Your task to perform on an android device: turn on notifications settings in the gmail app Image 0: 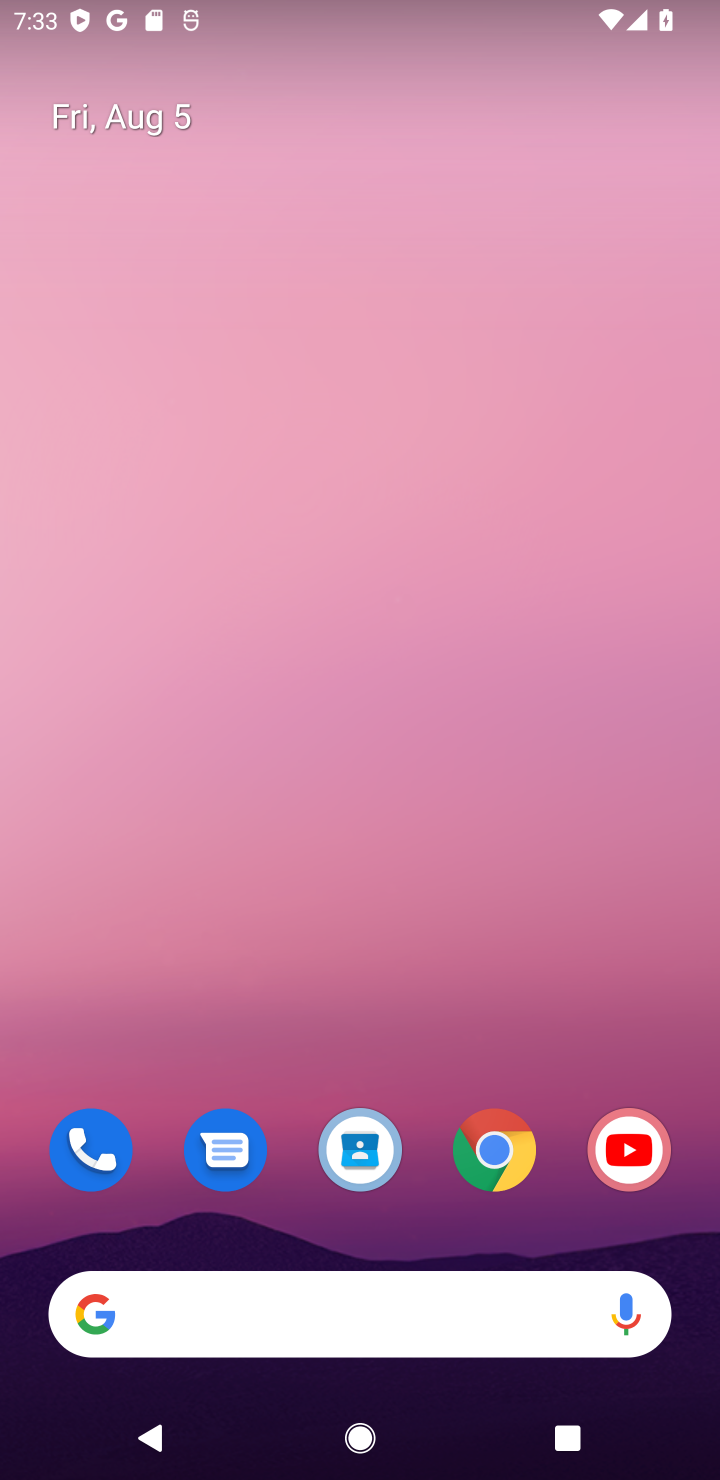
Step 0: press home button
Your task to perform on an android device: turn on notifications settings in the gmail app Image 1: 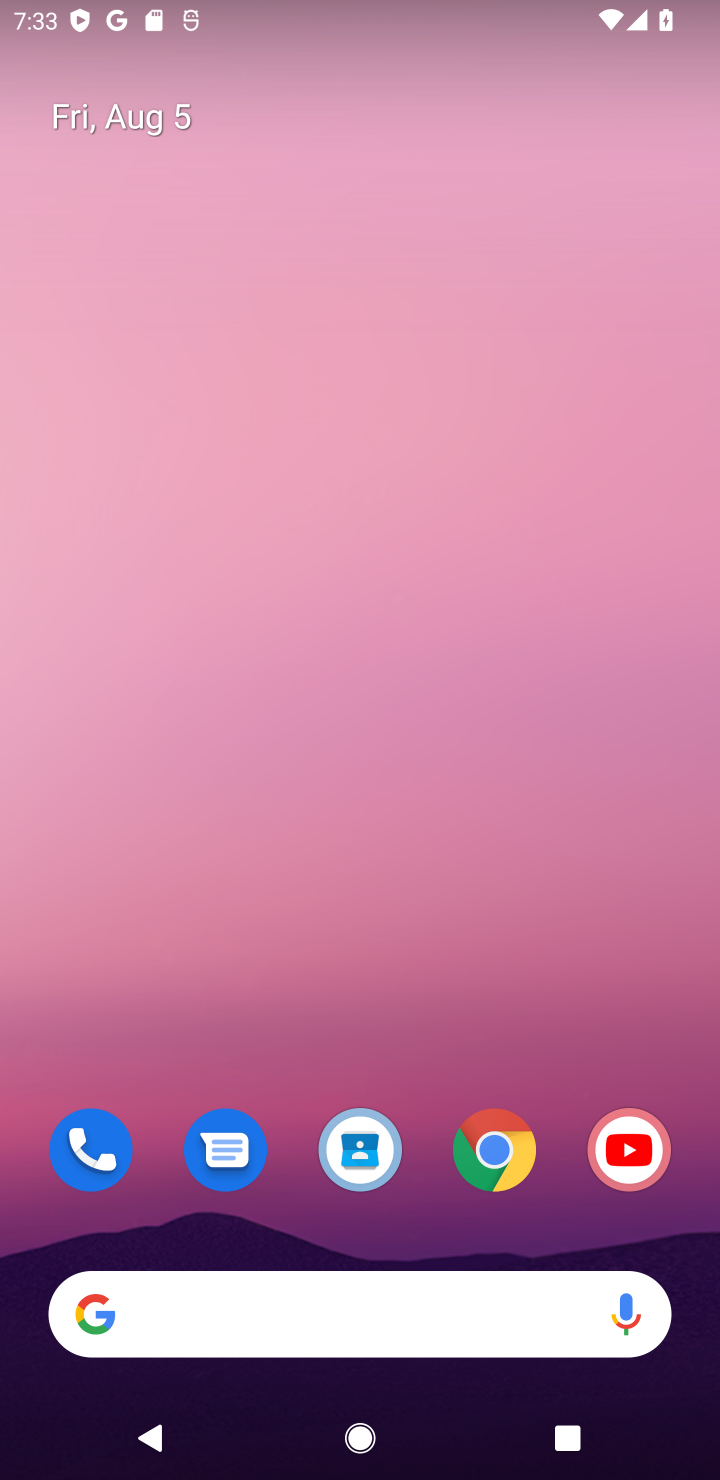
Step 1: drag from (421, 1074) to (477, 242)
Your task to perform on an android device: turn on notifications settings in the gmail app Image 2: 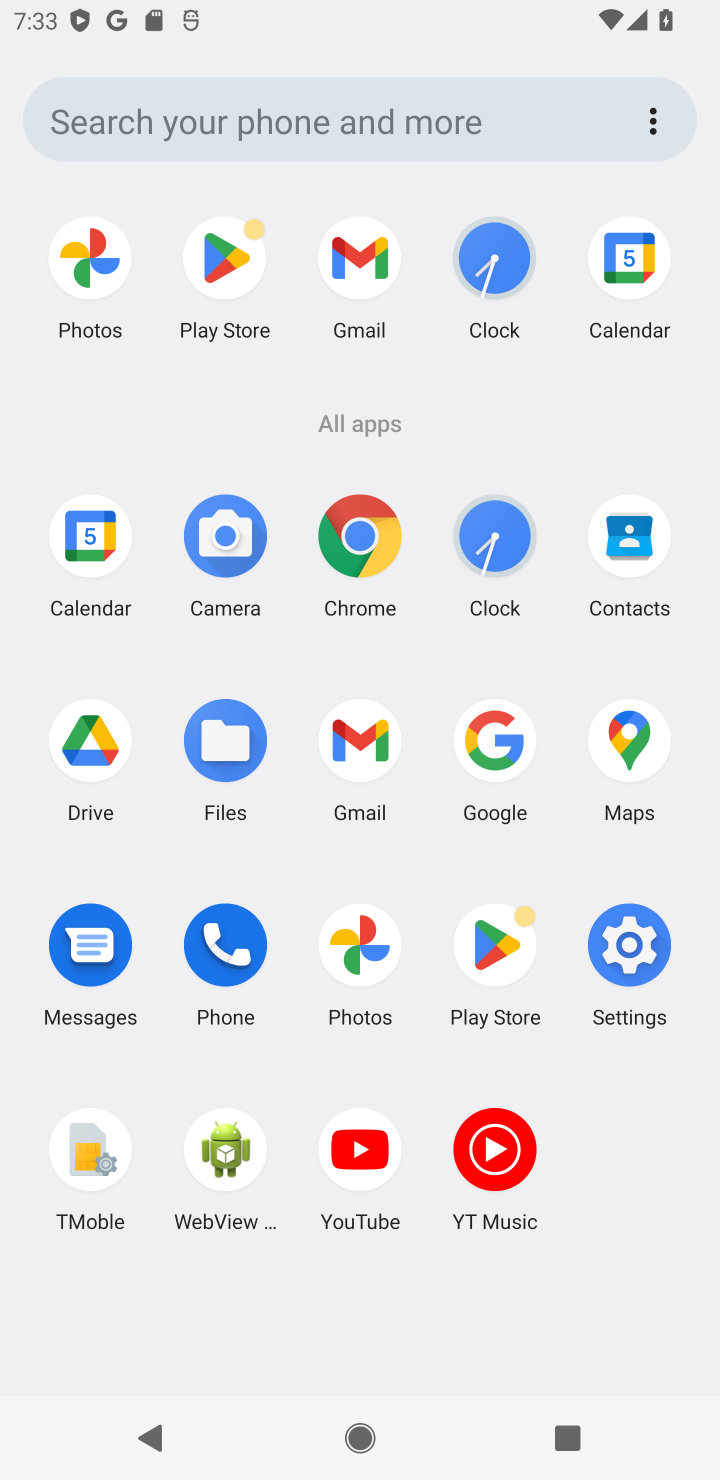
Step 2: click (363, 733)
Your task to perform on an android device: turn on notifications settings in the gmail app Image 3: 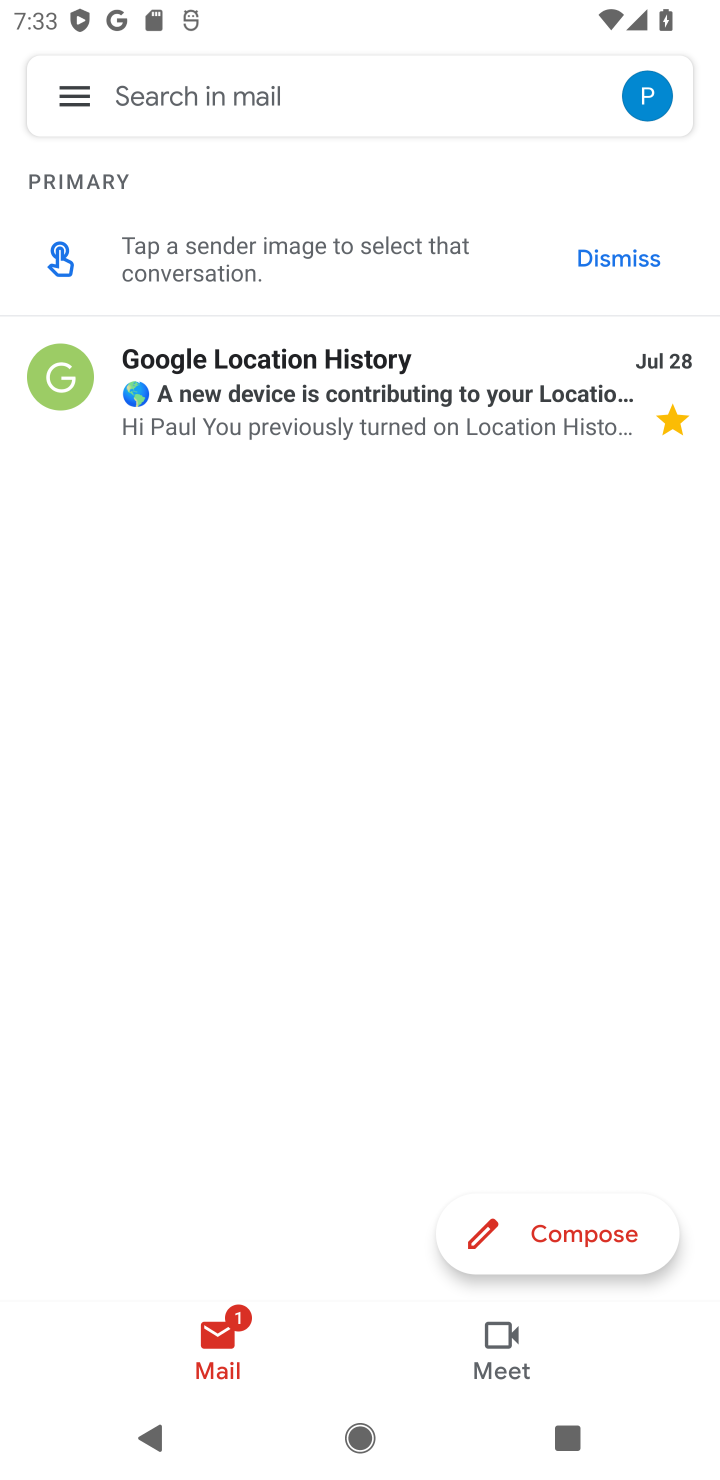
Step 3: click (69, 86)
Your task to perform on an android device: turn on notifications settings in the gmail app Image 4: 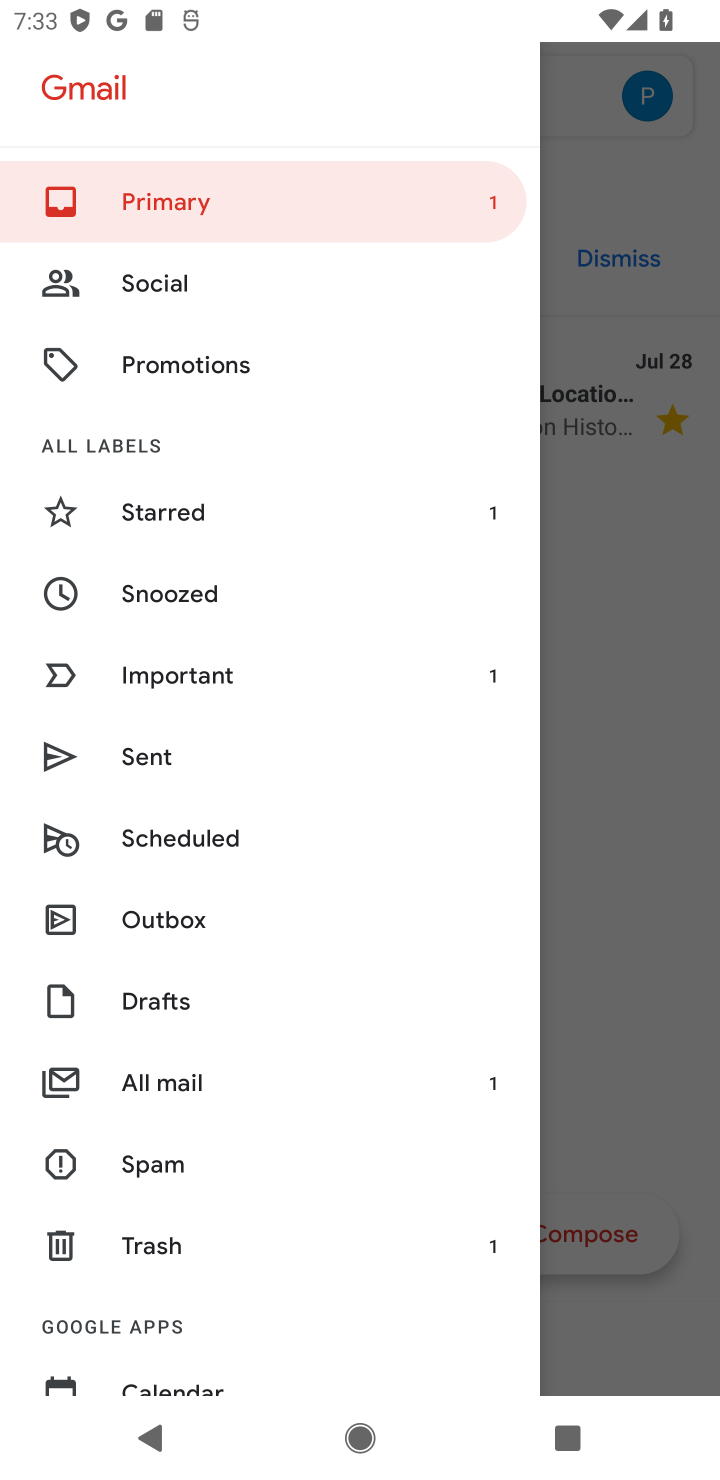
Step 4: drag from (393, 920) to (398, 619)
Your task to perform on an android device: turn on notifications settings in the gmail app Image 5: 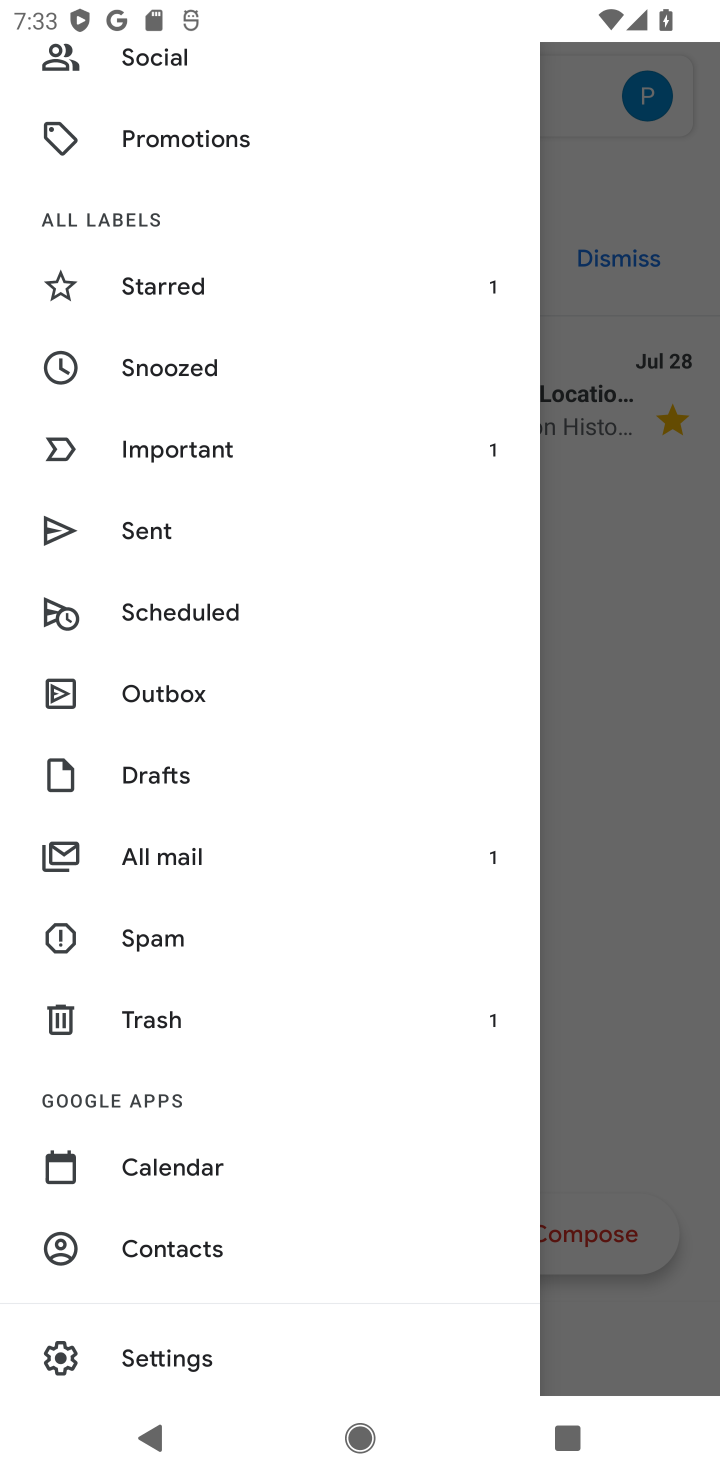
Step 5: drag from (301, 961) to (341, 599)
Your task to perform on an android device: turn on notifications settings in the gmail app Image 6: 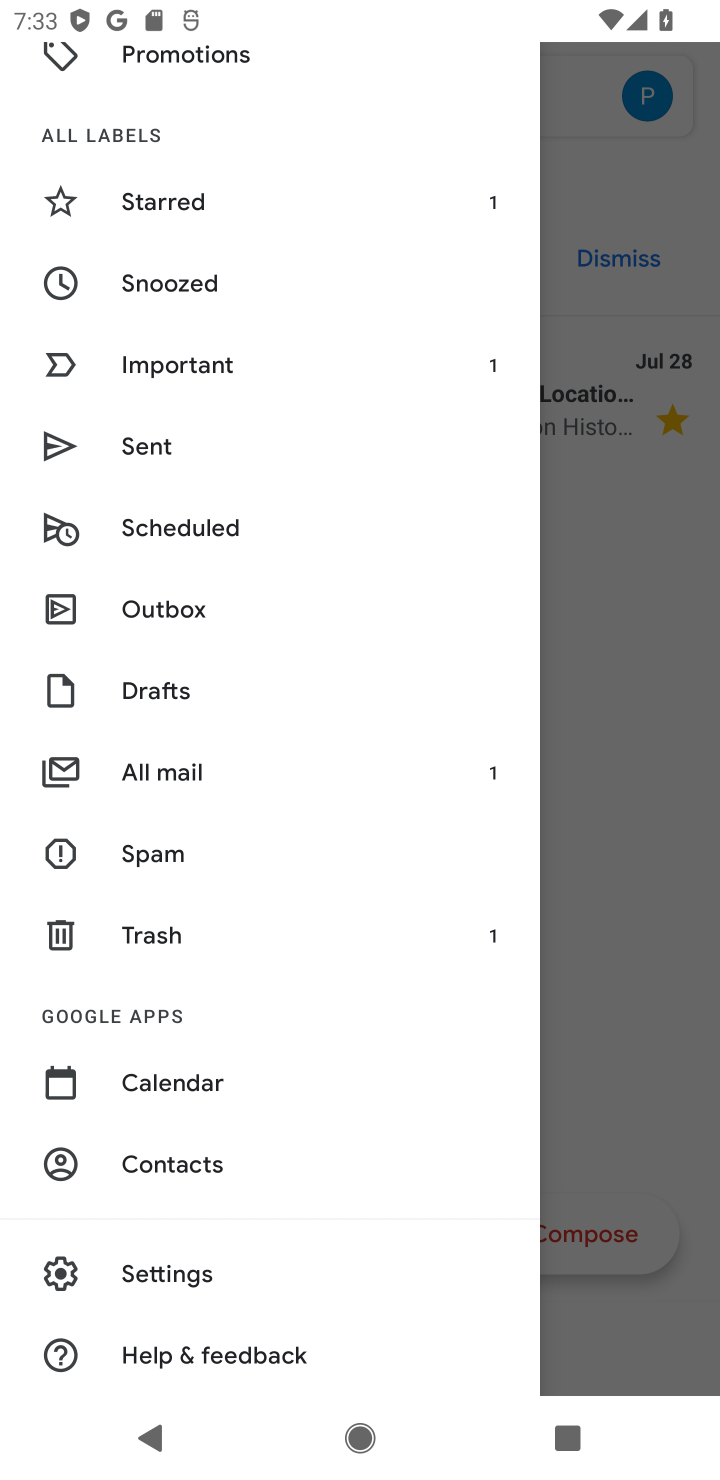
Step 6: drag from (319, 1178) to (343, 873)
Your task to perform on an android device: turn on notifications settings in the gmail app Image 7: 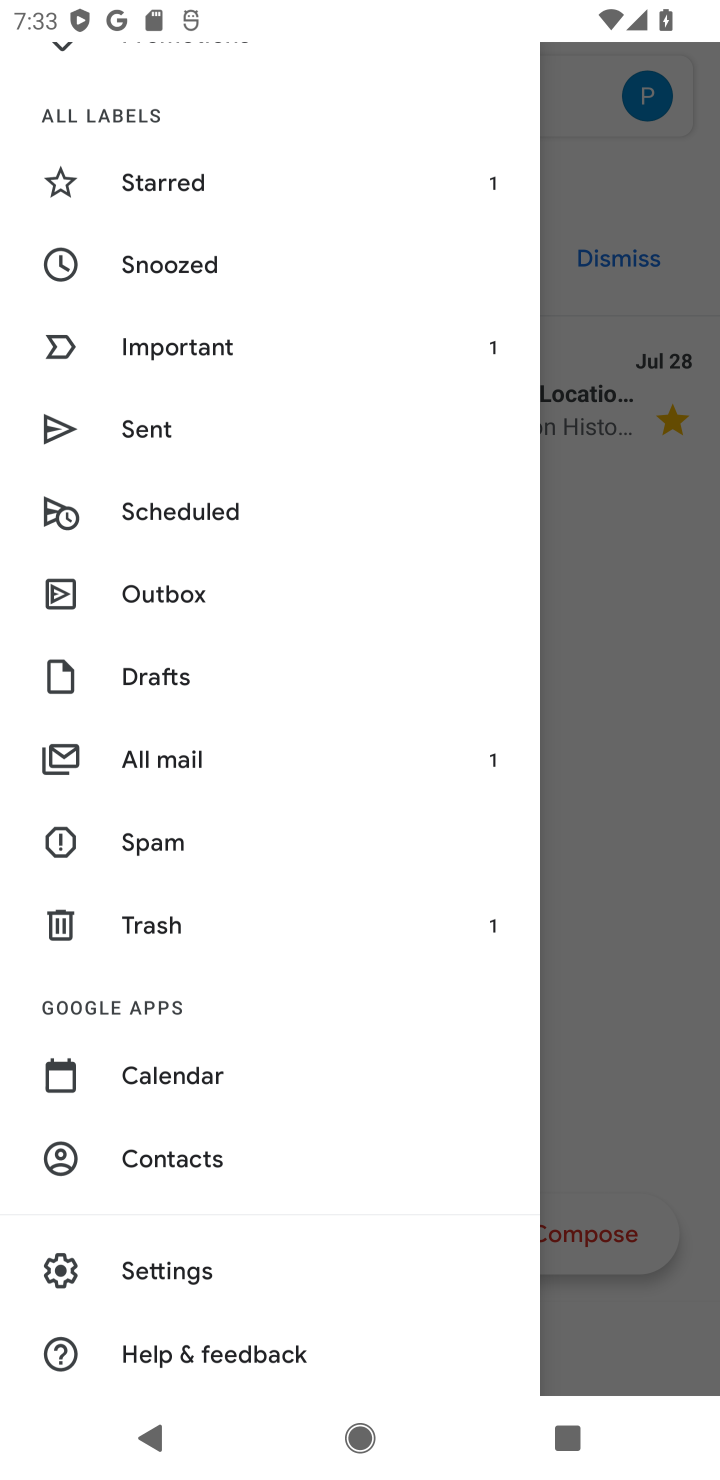
Step 7: click (214, 1264)
Your task to perform on an android device: turn on notifications settings in the gmail app Image 8: 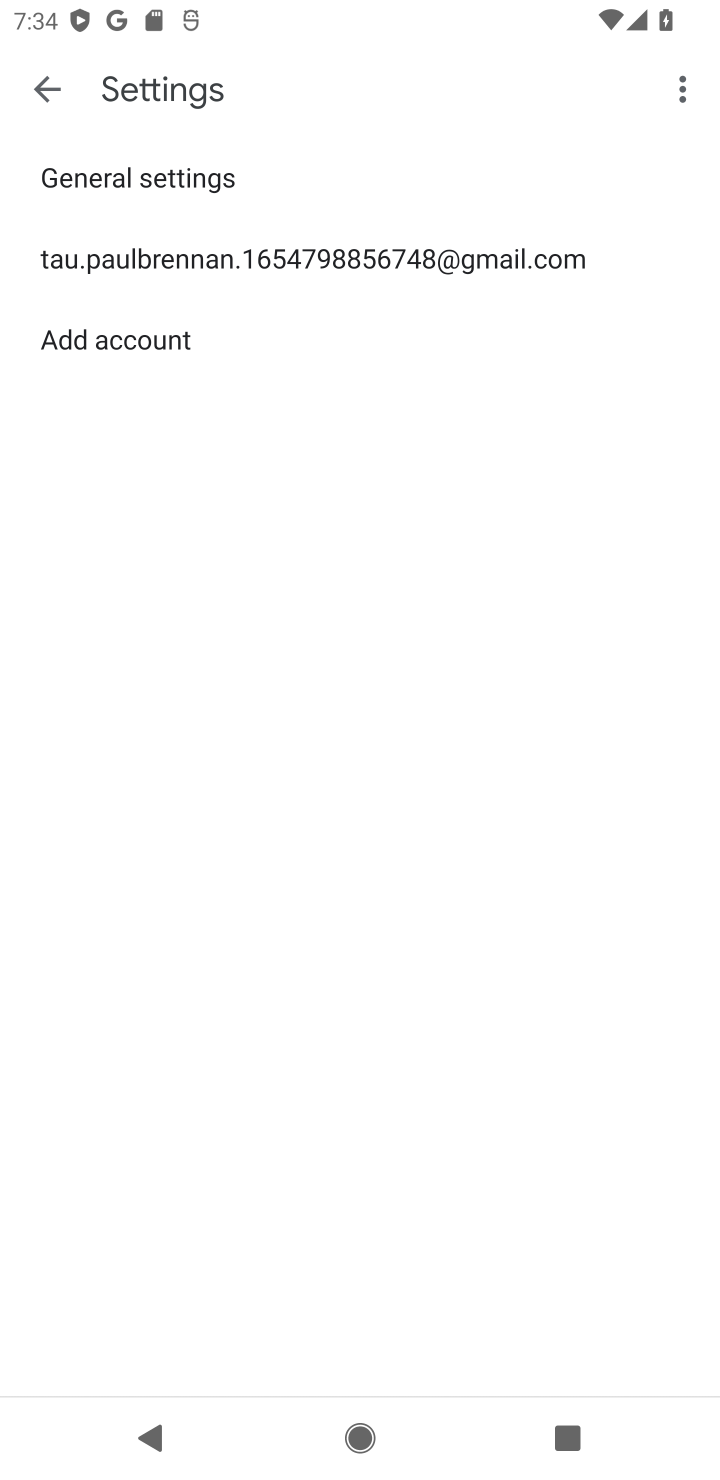
Step 8: click (395, 250)
Your task to perform on an android device: turn on notifications settings in the gmail app Image 9: 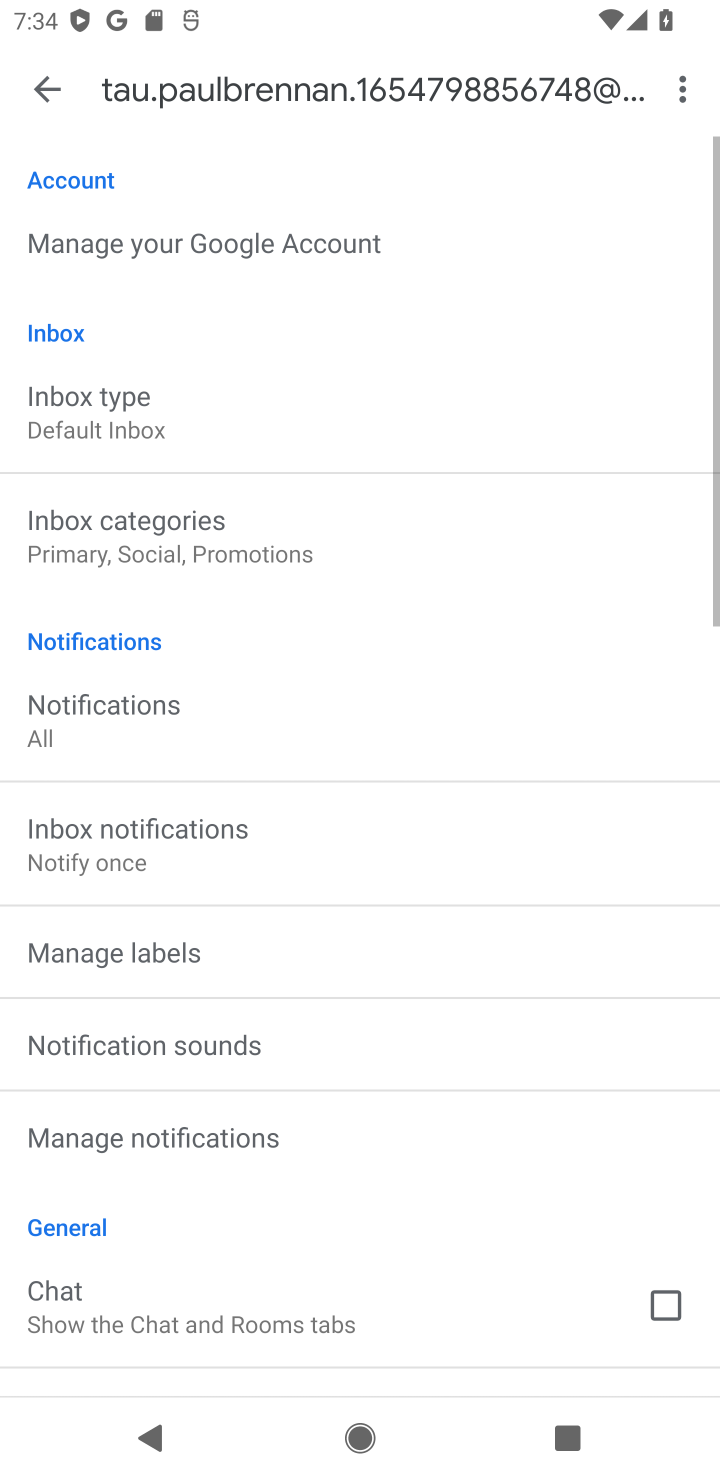
Step 9: drag from (456, 910) to (448, 603)
Your task to perform on an android device: turn on notifications settings in the gmail app Image 10: 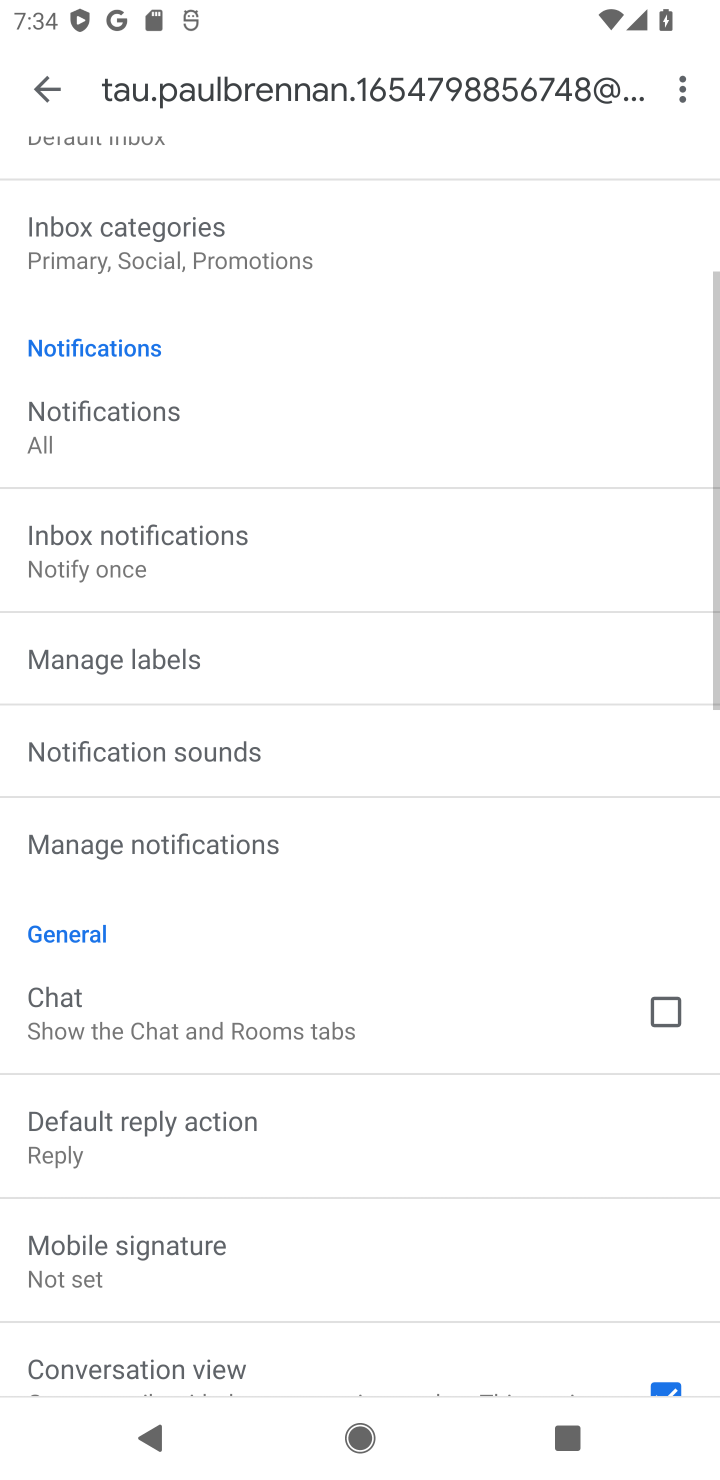
Step 10: drag from (417, 909) to (442, 644)
Your task to perform on an android device: turn on notifications settings in the gmail app Image 11: 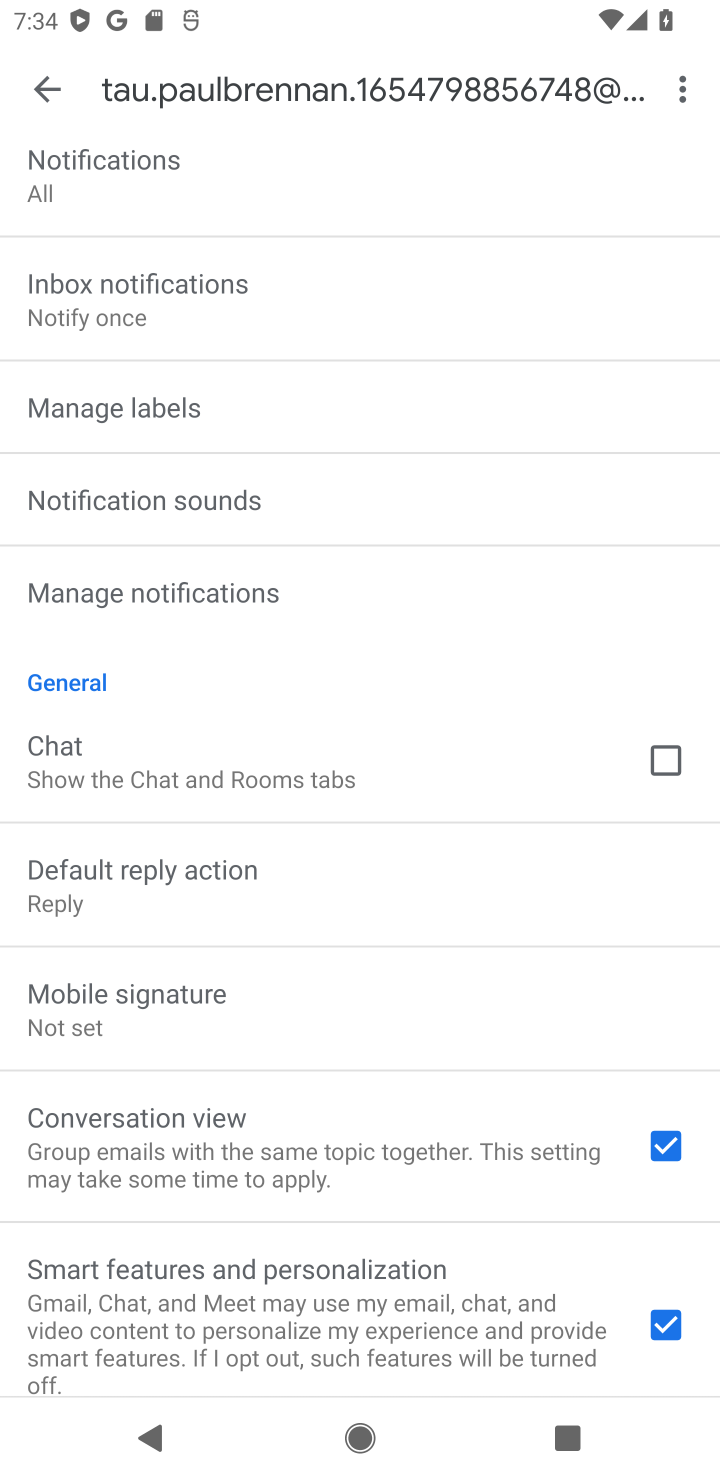
Step 11: drag from (423, 974) to (467, 552)
Your task to perform on an android device: turn on notifications settings in the gmail app Image 12: 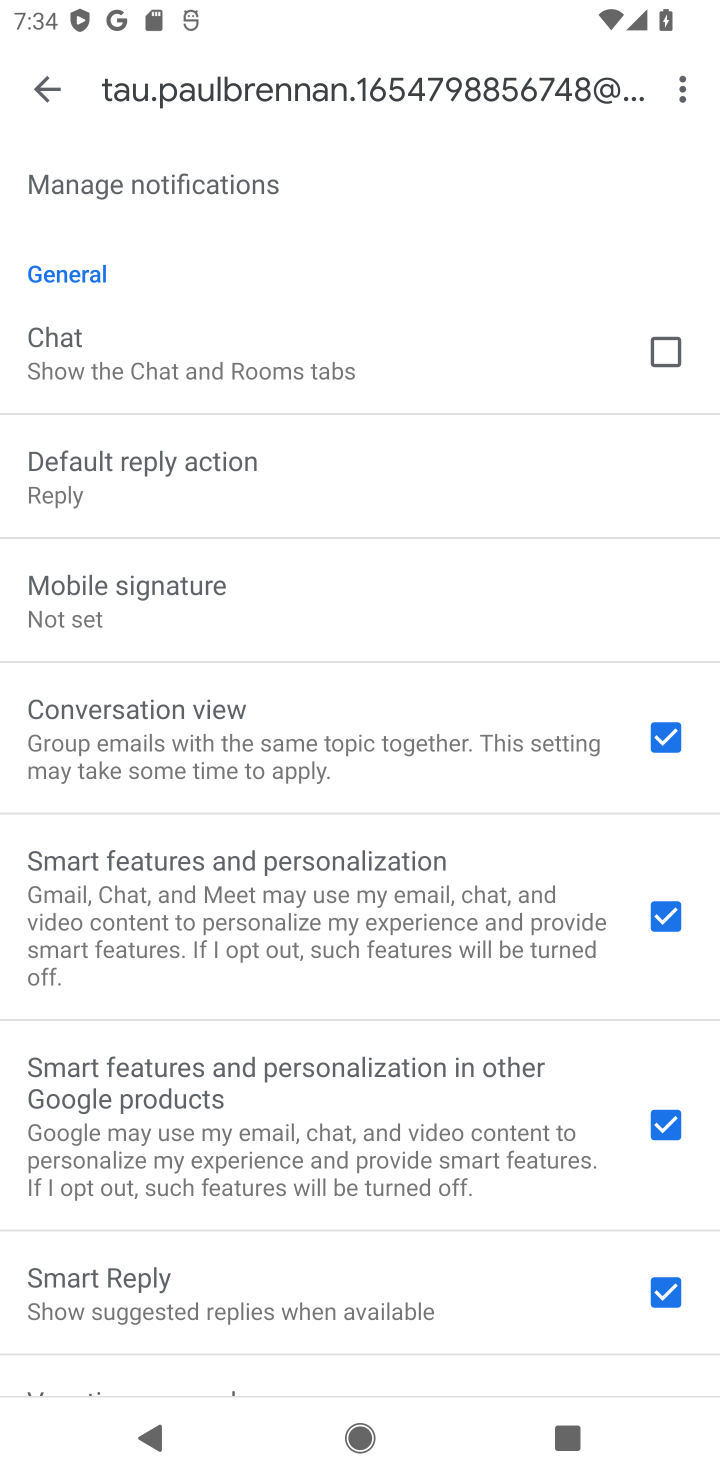
Step 12: drag from (430, 961) to (449, 607)
Your task to perform on an android device: turn on notifications settings in the gmail app Image 13: 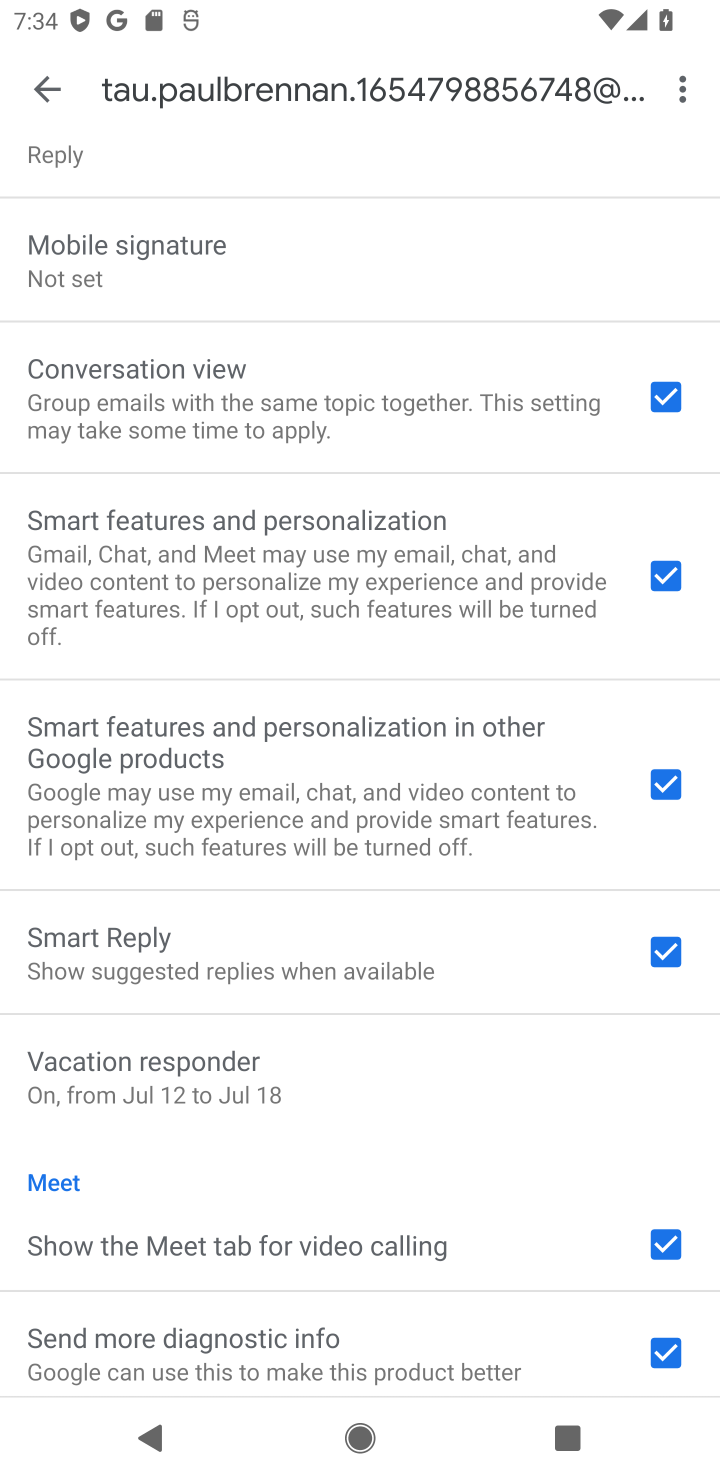
Step 13: drag from (498, 1012) to (532, 614)
Your task to perform on an android device: turn on notifications settings in the gmail app Image 14: 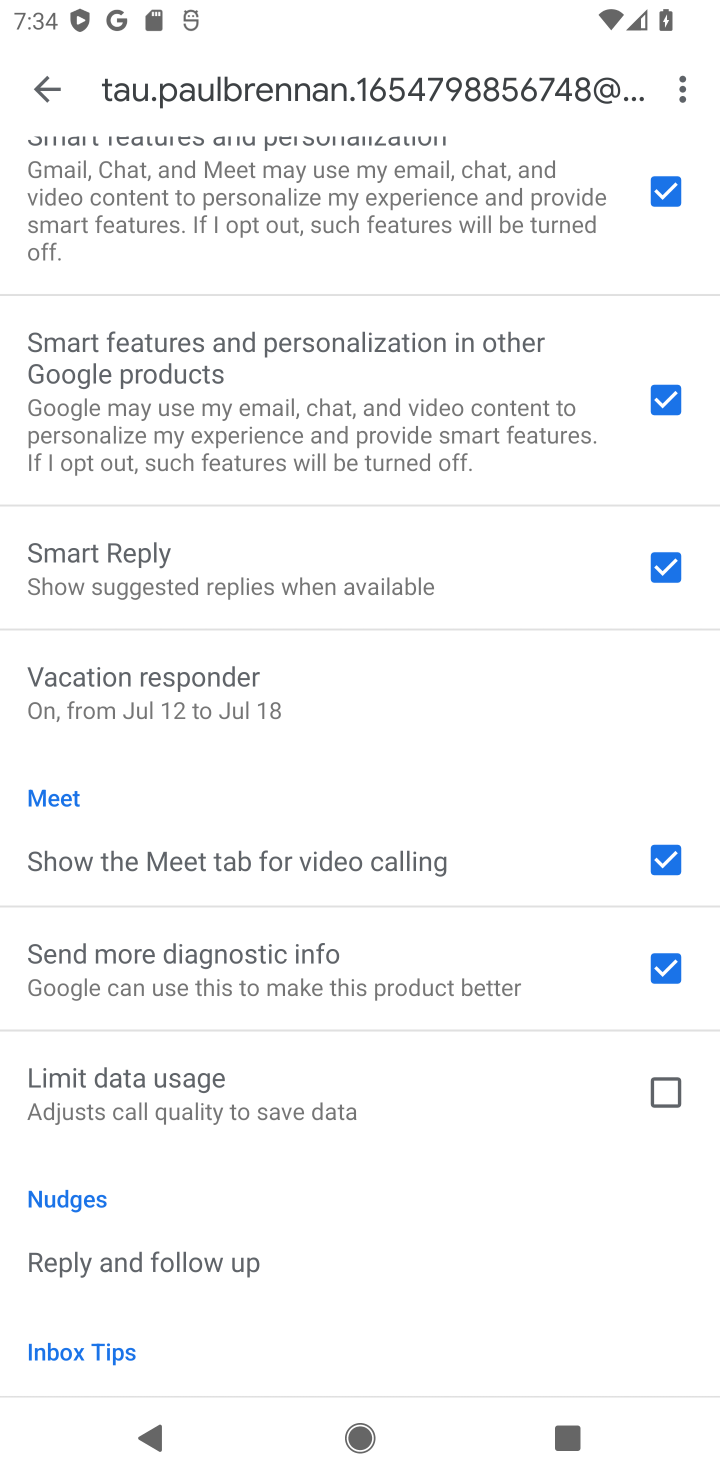
Step 14: drag from (537, 472) to (543, 940)
Your task to perform on an android device: turn on notifications settings in the gmail app Image 15: 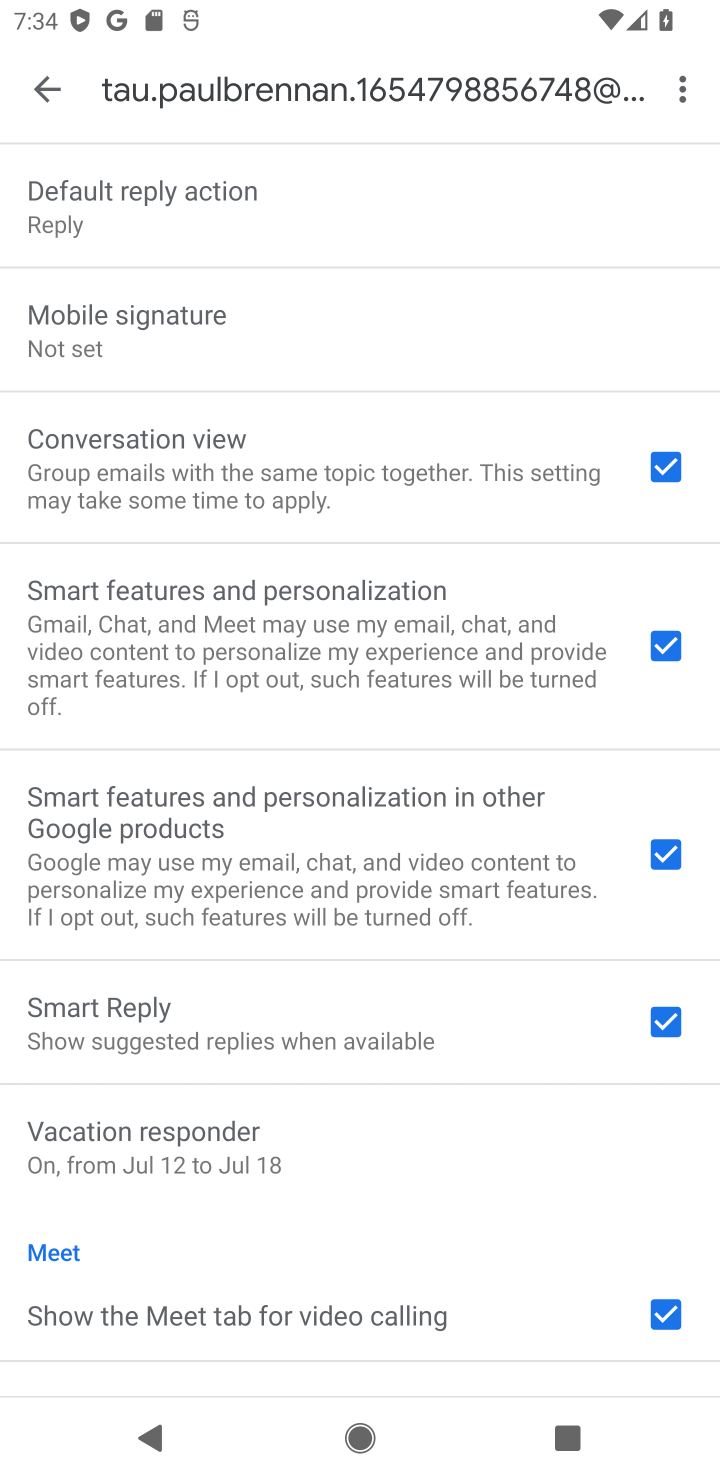
Step 15: drag from (570, 351) to (567, 717)
Your task to perform on an android device: turn on notifications settings in the gmail app Image 16: 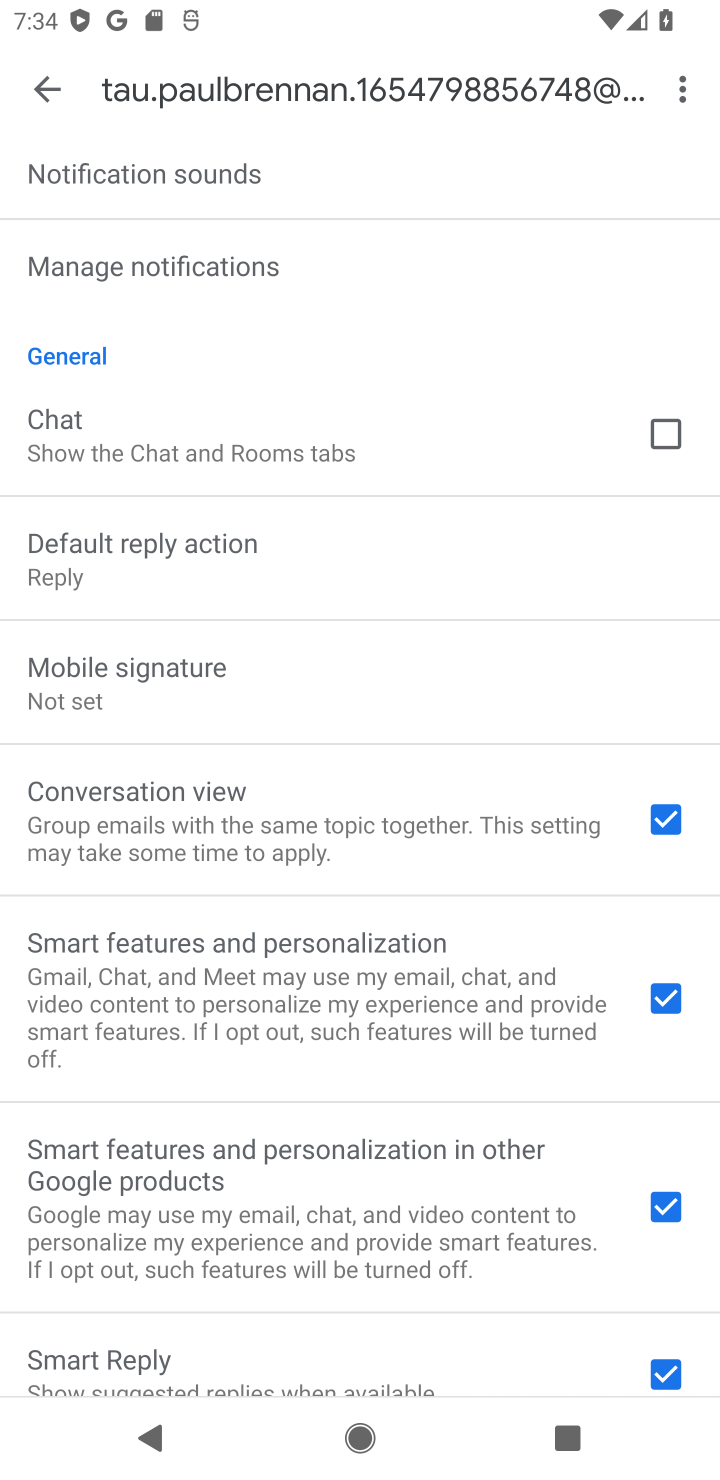
Step 16: drag from (496, 286) to (496, 745)
Your task to perform on an android device: turn on notifications settings in the gmail app Image 17: 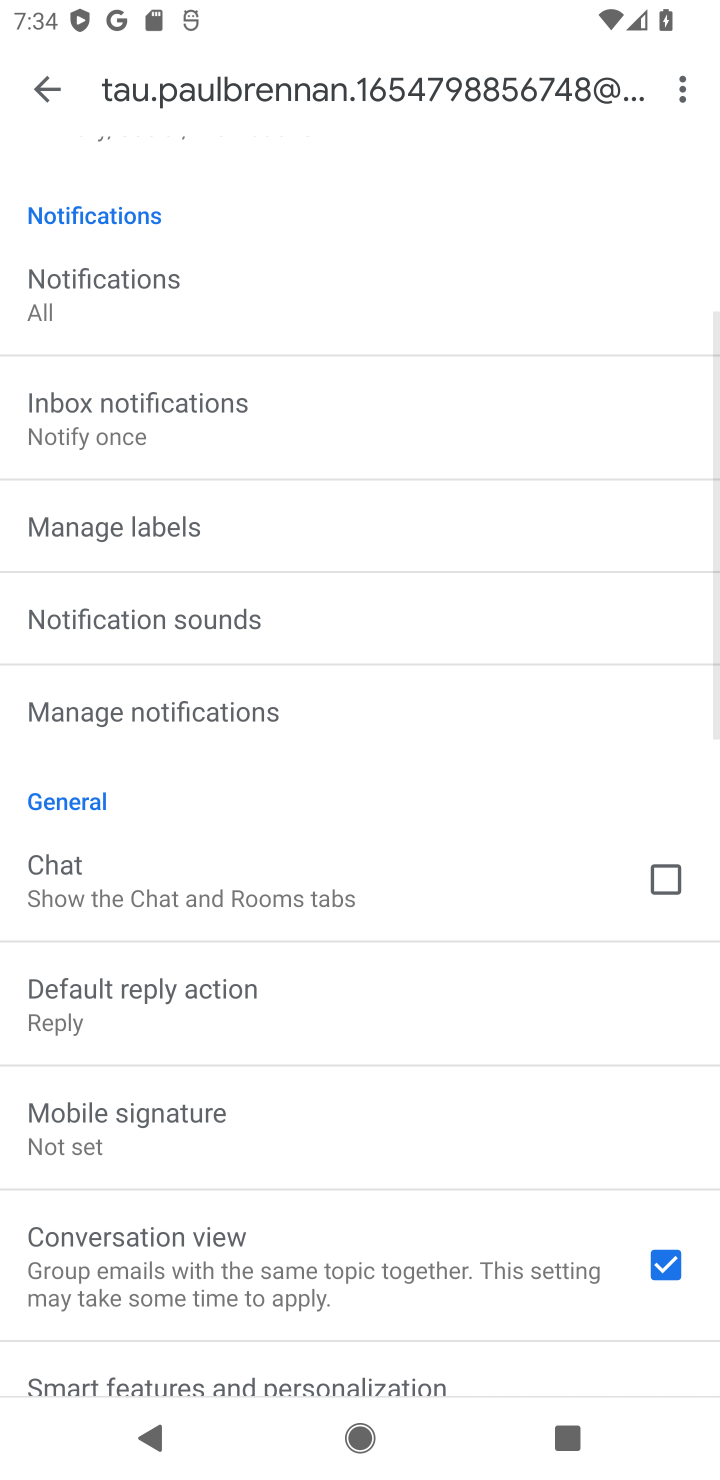
Step 17: drag from (487, 260) to (485, 750)
Your task to perform on an android device: turn on notifications settings in the gmail app Image 18: 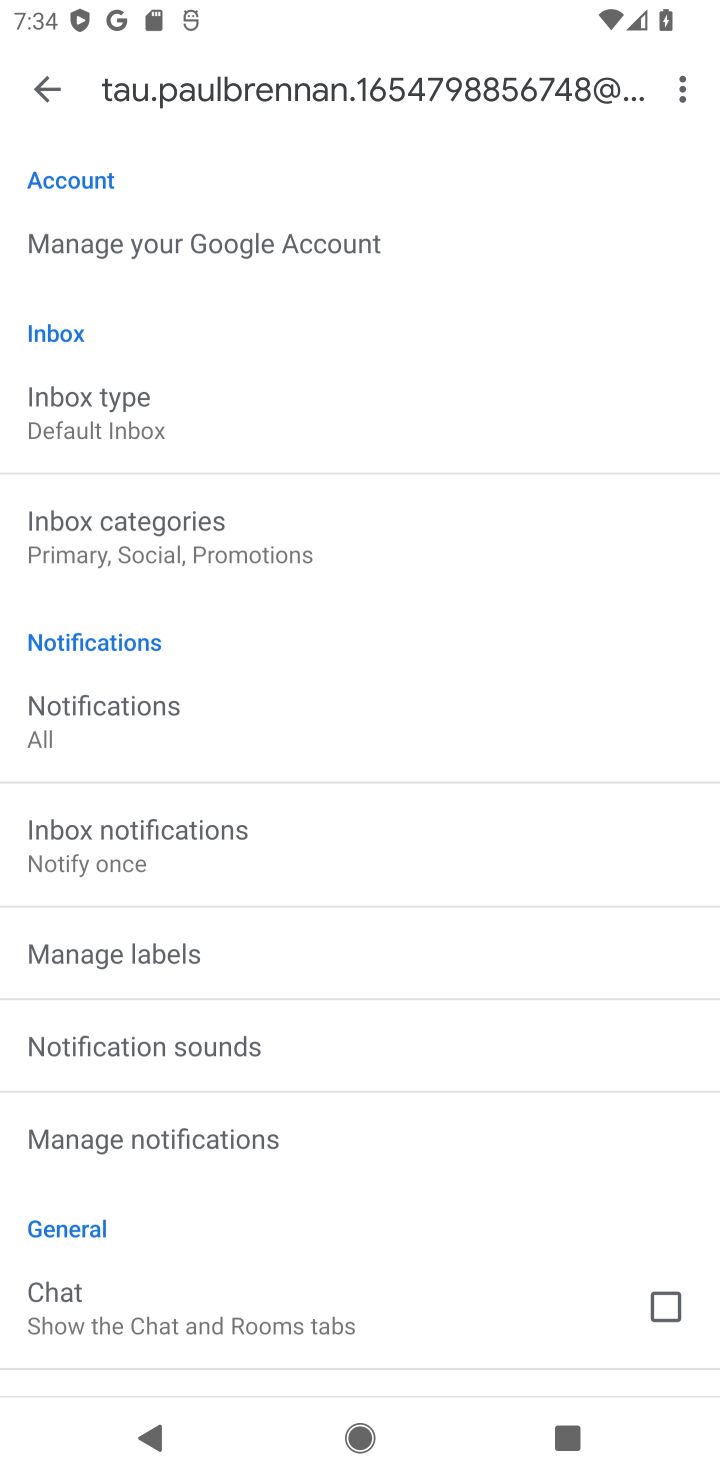
Step 18: drag from (496, 244) to (469, 683)
Your task to perform on an android device: turn on notifications settings in the gmail app Image 19: 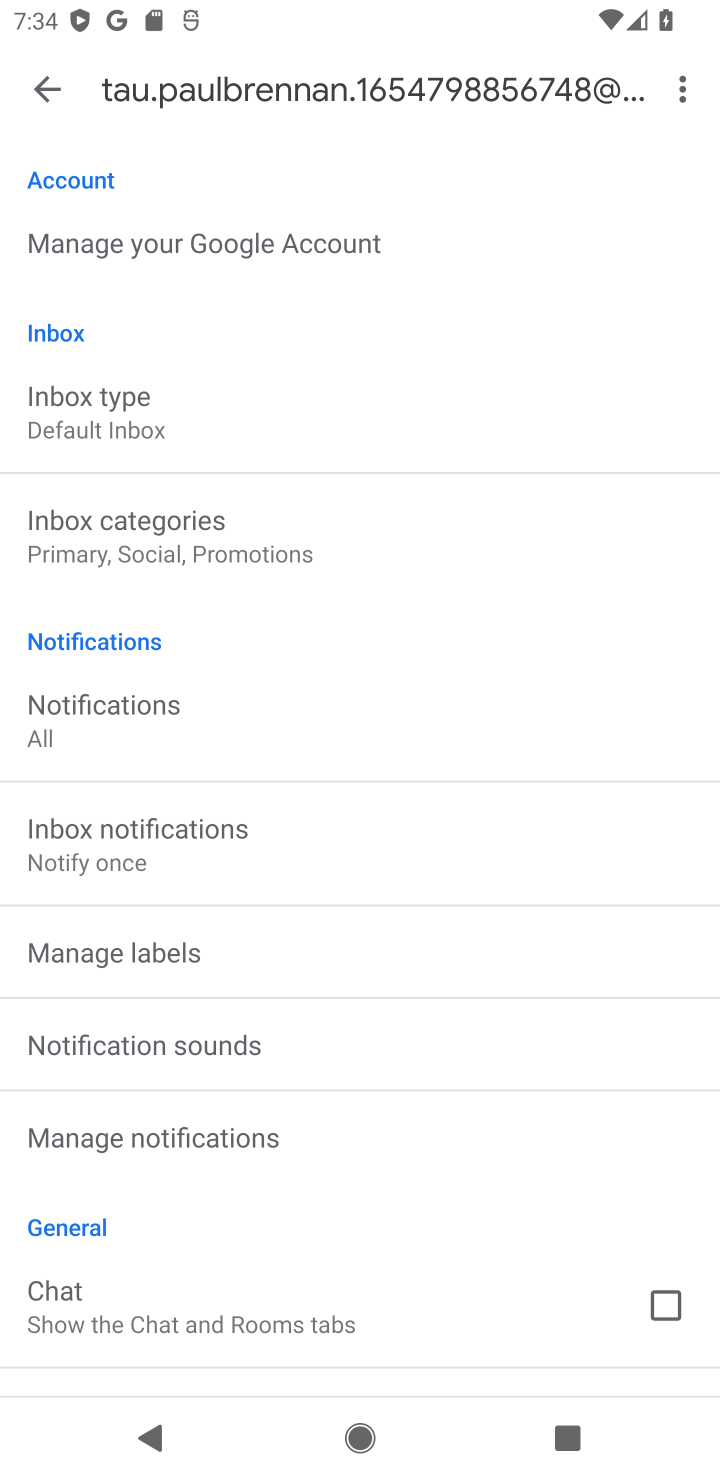
Step 19: drag from (386, 821) to (464, 354)
Your task to perform on an android device: turn on notifications settings in the gmail app Image 20: 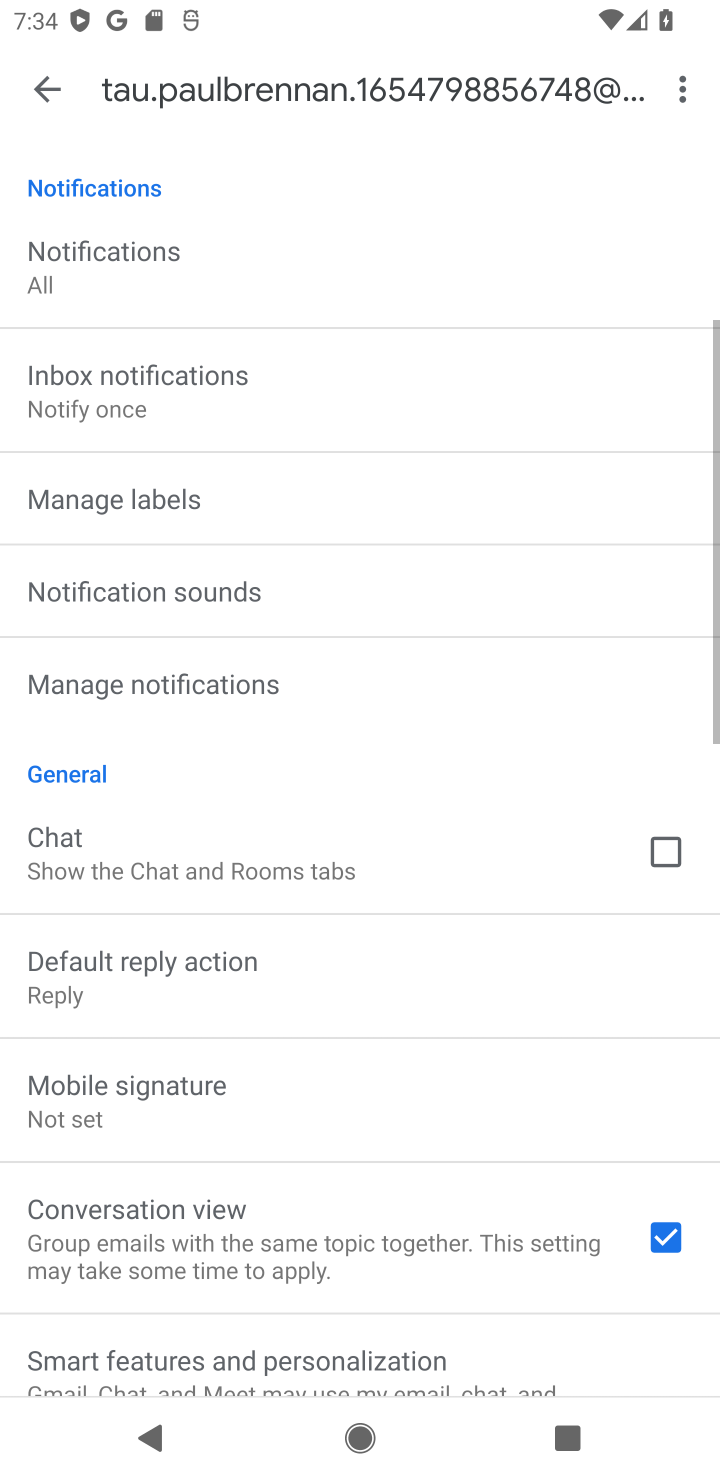
Step 20: drag from (398, 847) to (463, 479)
Your task to perform on an android device: turn on notifications settings in the gmail app Image 21: 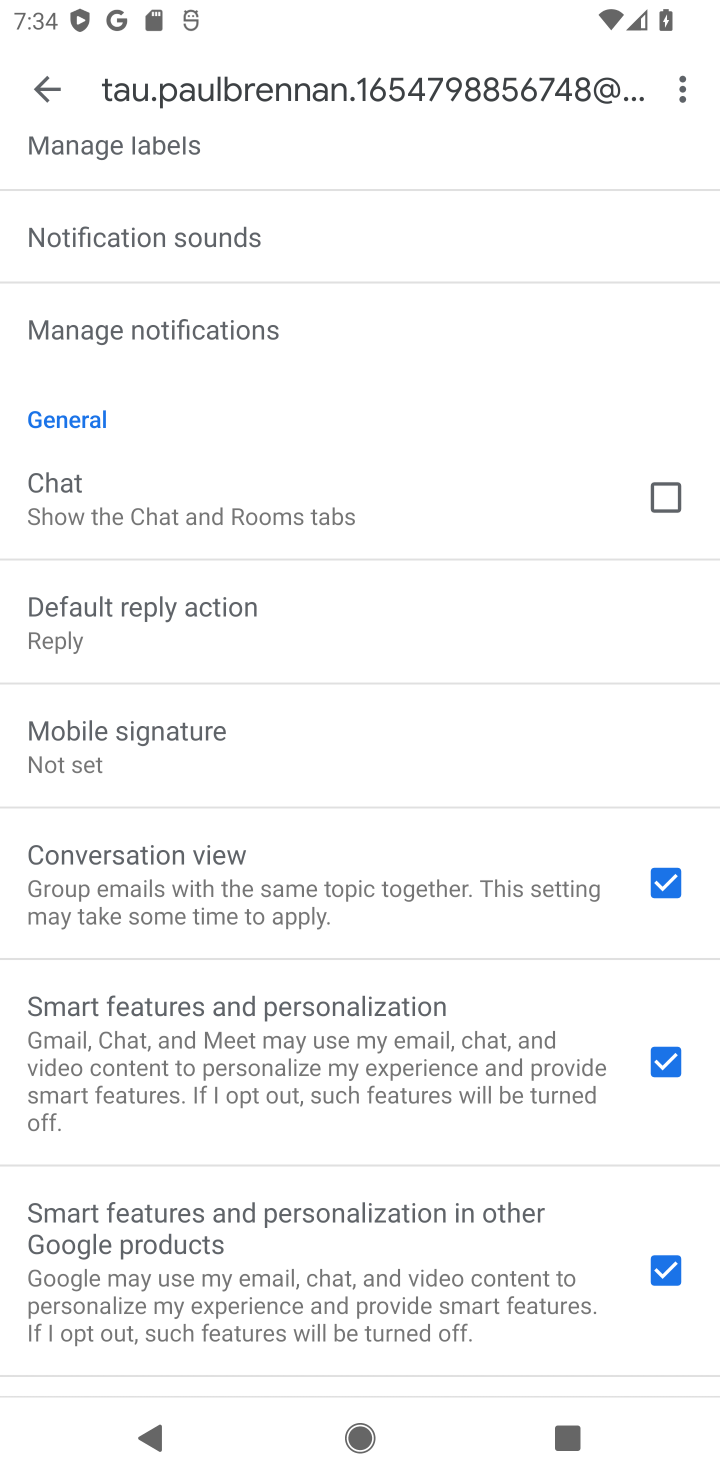
Step 21: click (311, 326)
Your task to perform on an android device: turn on notifications settings in the gmail app Image 22: 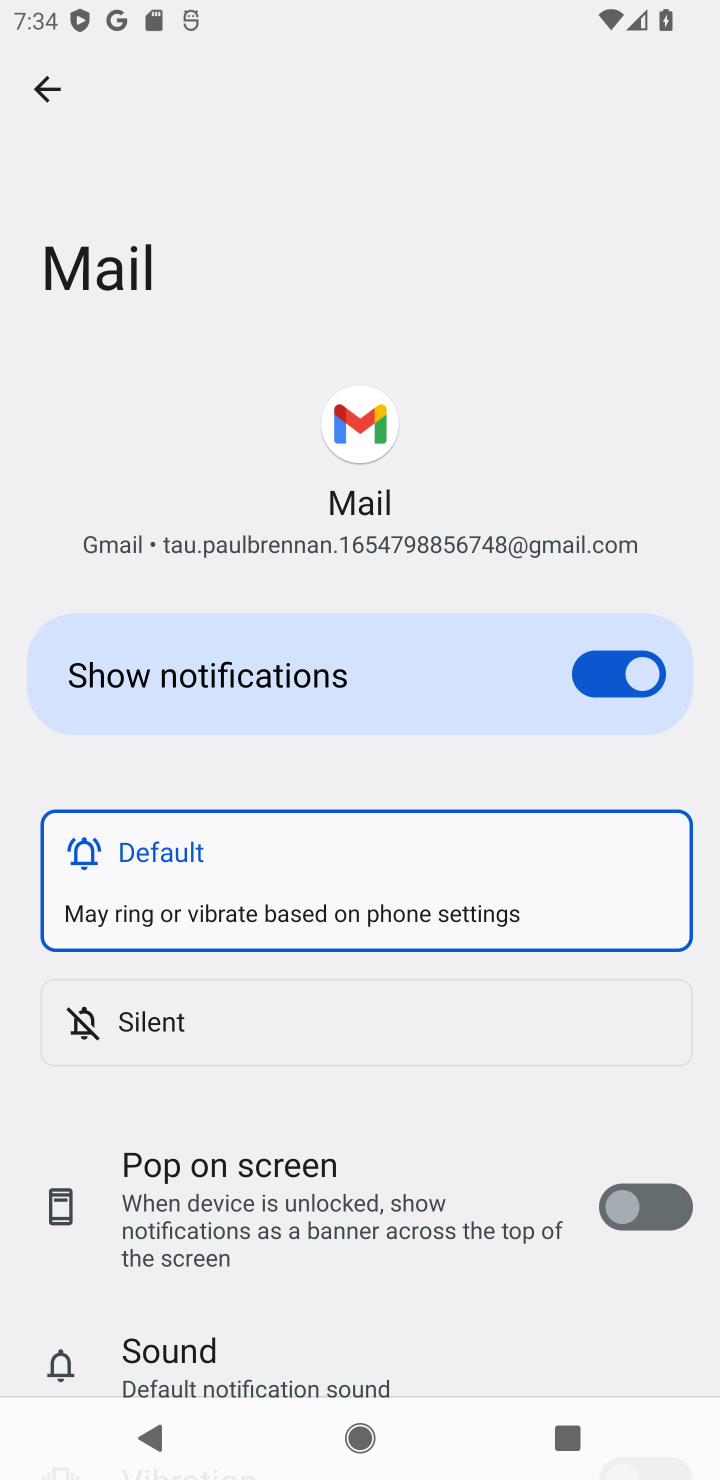
Step 22: task complete